Your task to perform on an android device: clear all cookies in the chrome app Image 0: 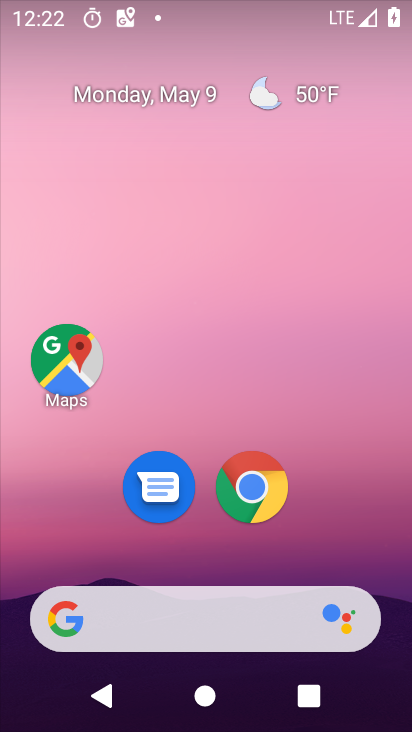
Step 0: click (263, 510)
Your task to perform on an android device: clear all cookies in the chrome app Image 1: 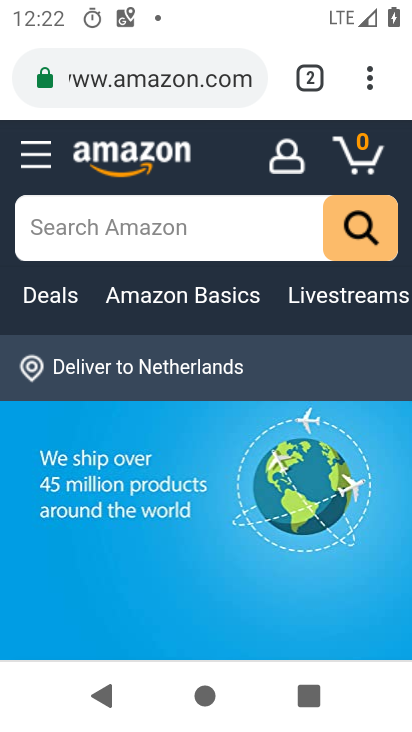
Step 1: click (375, 79)
Your task to perform on an android device: clear all cookies in the chrome app Image 2: 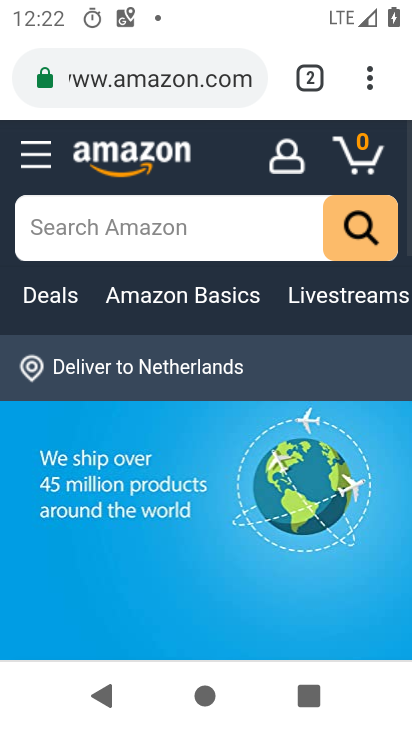
Step 2: drag from (375, 79) to (168, 563)
Your task to perform on an android device: clear all cookies in the chrome app Image 3: 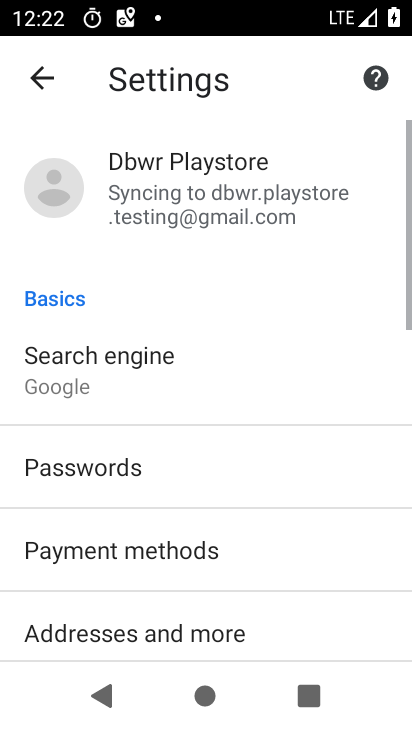
Step 3: drag from (168, 563) to (191, 231)
Your task to perform on an android device: clear all cookies in the chrome app Image 4: 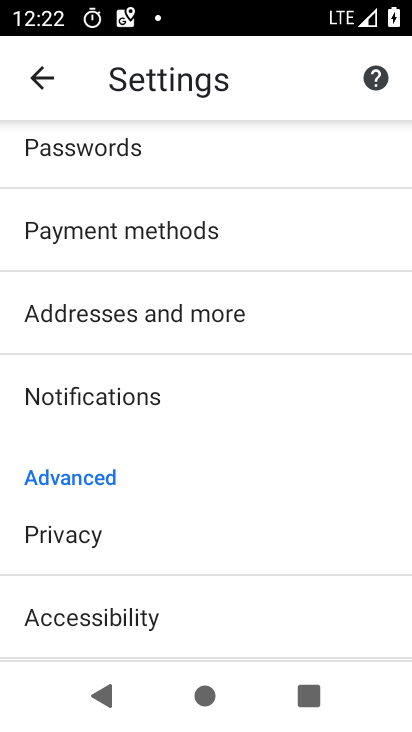
Step 4: drag from (184, 590) to (189, 393)
Your task to perform on an android device: clear all cookies in the chrome app Image 5: 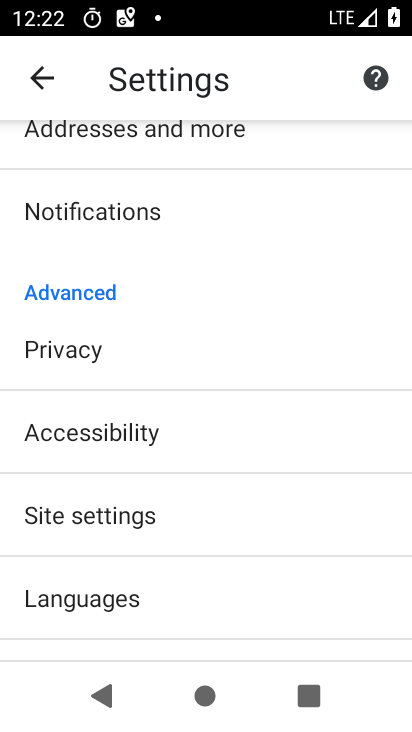
Step 5: click (160, 524)
Your task to perform on an android device: clear all cookies in the chrome app Image 6: 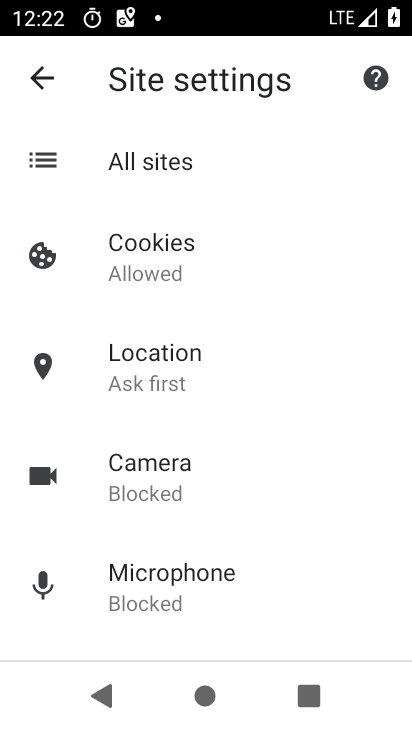
Step 6: click (177, 260)
Your task to perform on an android device: clear all cookies in the chrome app Image 7: 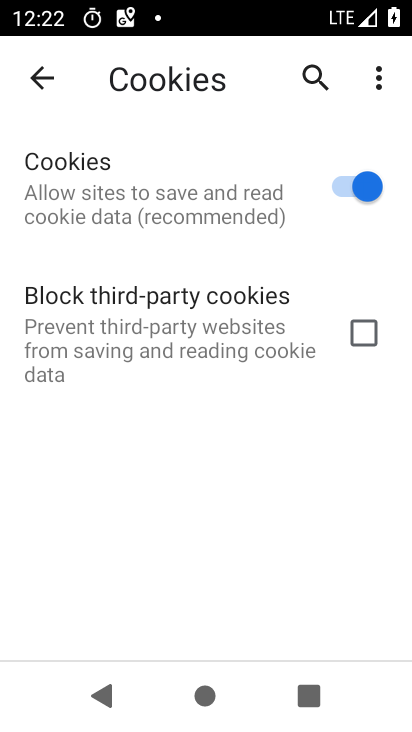
Step 7: task complete